Your task to perform on an android device: Open the stopwatch Image 0: 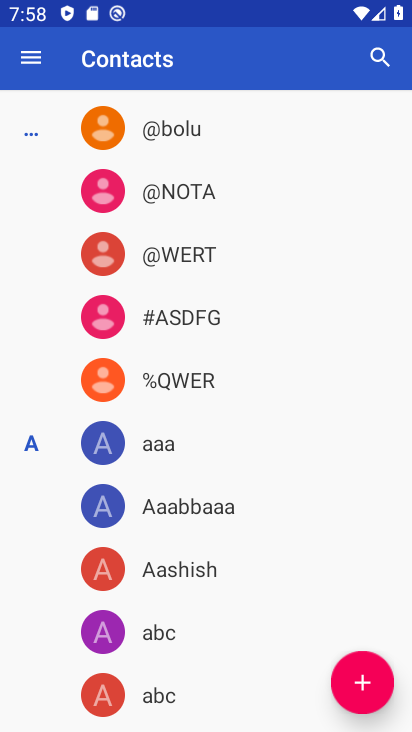
Step 0: press back button
Your task to perform on an android device: Open the stopwatch Image 1: 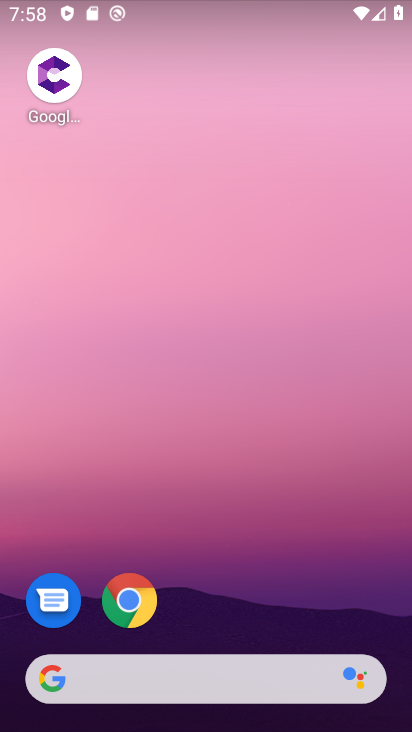
Step 1: drag from (203, 658) to (328, 38)
Your task to perform on an android device: Open the stopwatch Image 2: 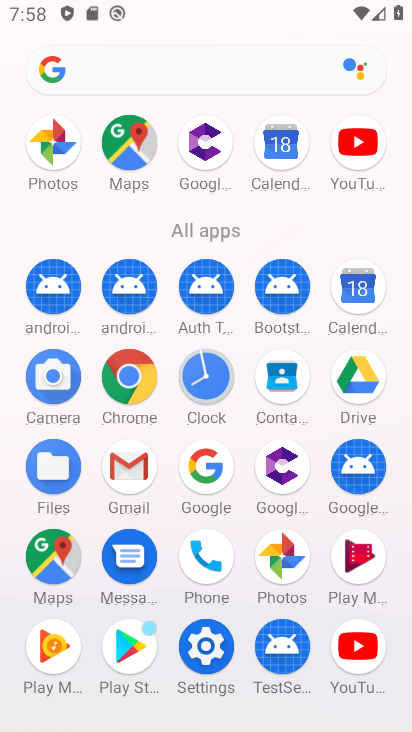
Step 2: click (208, 376)
Your task to perform on an android device: Open the stopwatch Image 3: 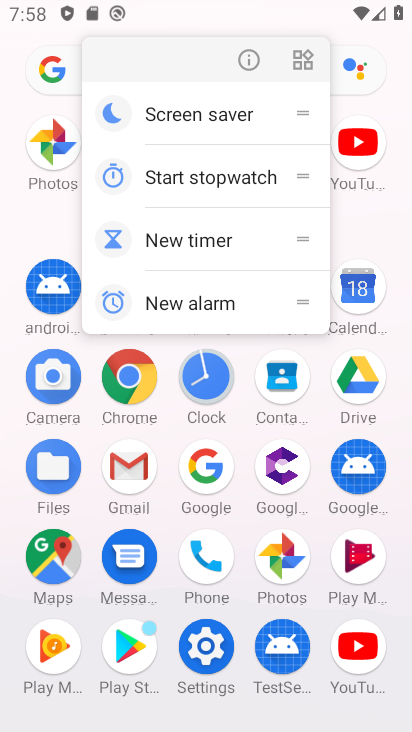
Step 3: click (218, 368)
Your task to perform on an android device: Open the stopwatch Image 4: 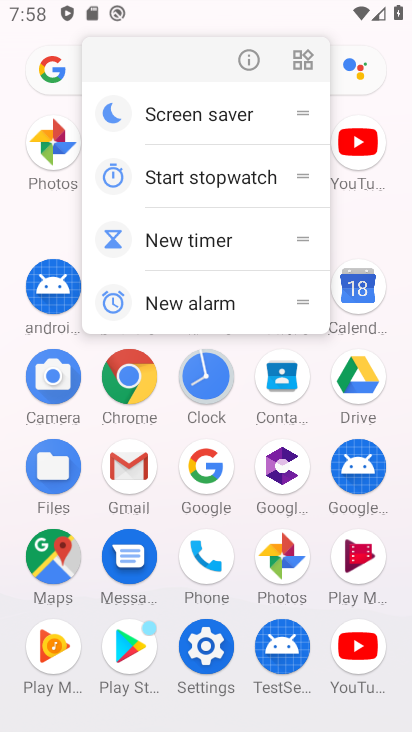
Step 4: click (212, 399)
Your task to perform on an android device: Open the stopwatch Image 5: 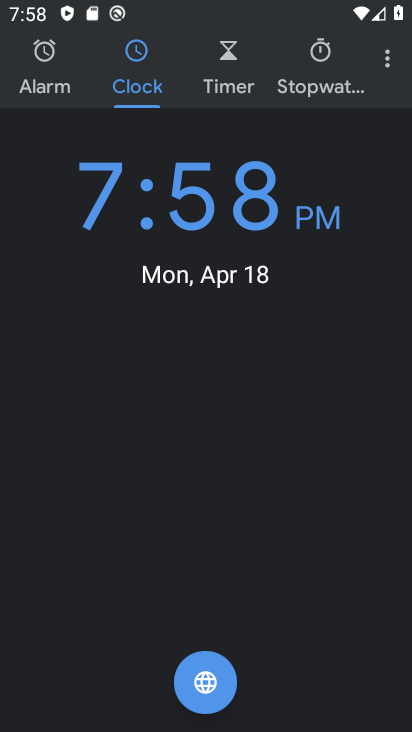
Step 5: click (313, 59)
Your task to perform on an android device: Open the stopwatch Image 6: 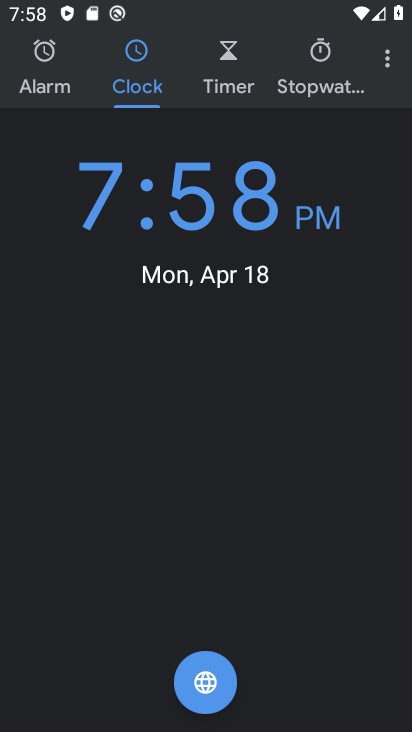
Step 6: click (333, 46)
Your task to perform on an android device: Open the stopwatch Image 7: 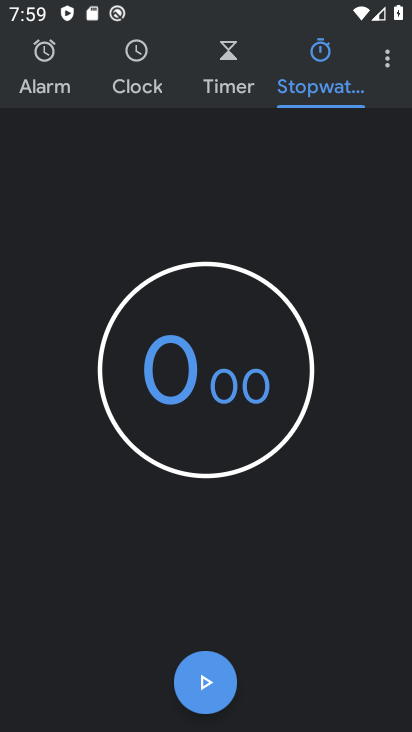
Step 7: task complete